Your task to perform on an android device: open app "Duolingo: language lessons" (install if not already installed), go to login, and select forgot password Image 0: 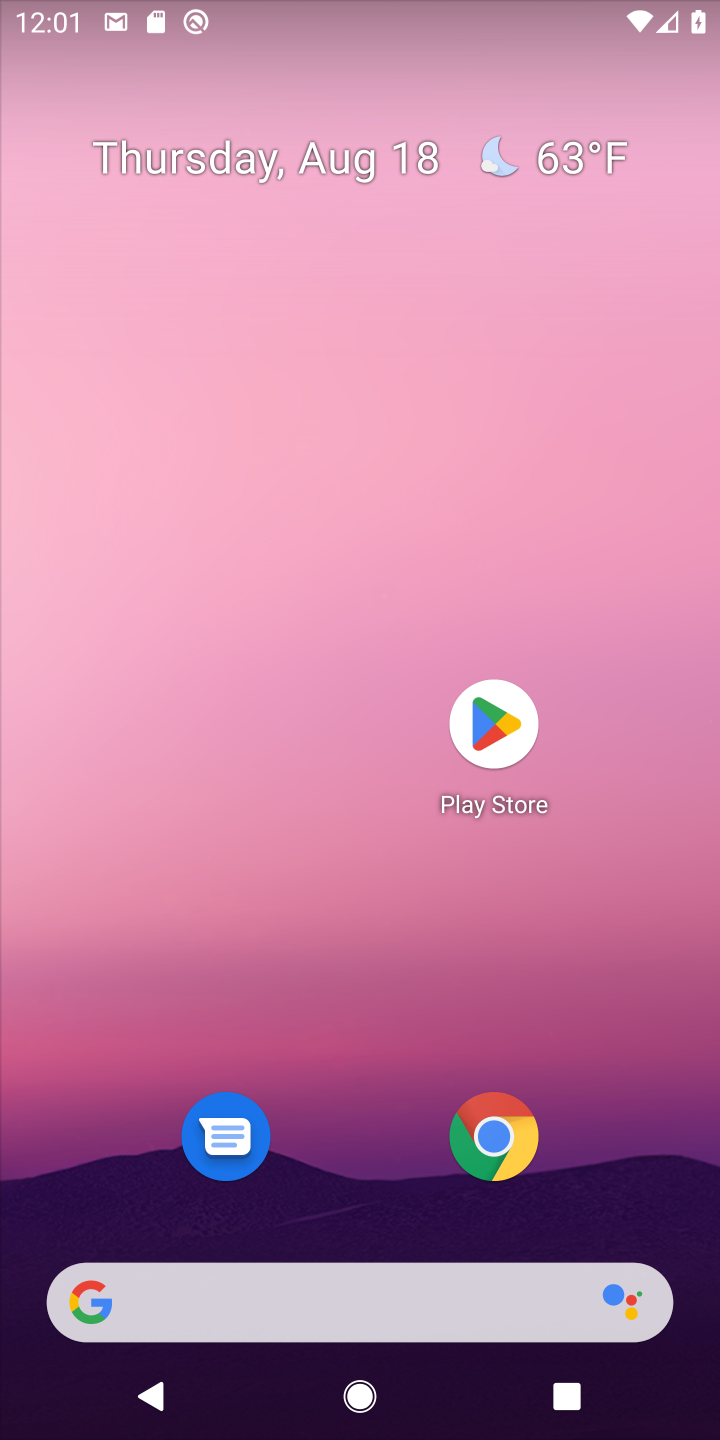
Step 0: press home button
Your task to perform on an android device: open app "Duolingo: language lessons" (install if not already installed), go to login, and select forgot password Image 1: 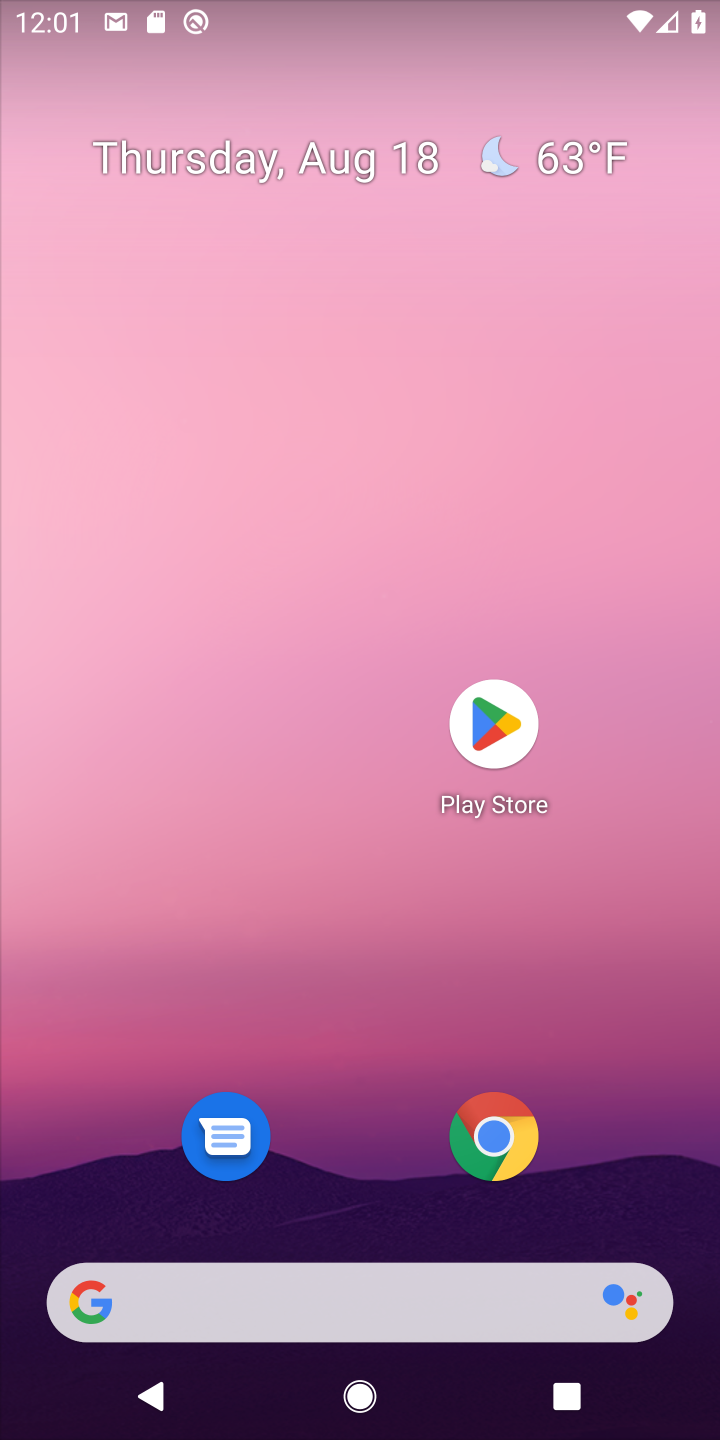
Step 1: click (488, 725)
Your task to perform on an android device: open app "Duolingo: language lessons" (install if not already installed), go to login, and select forgot password Image 2: 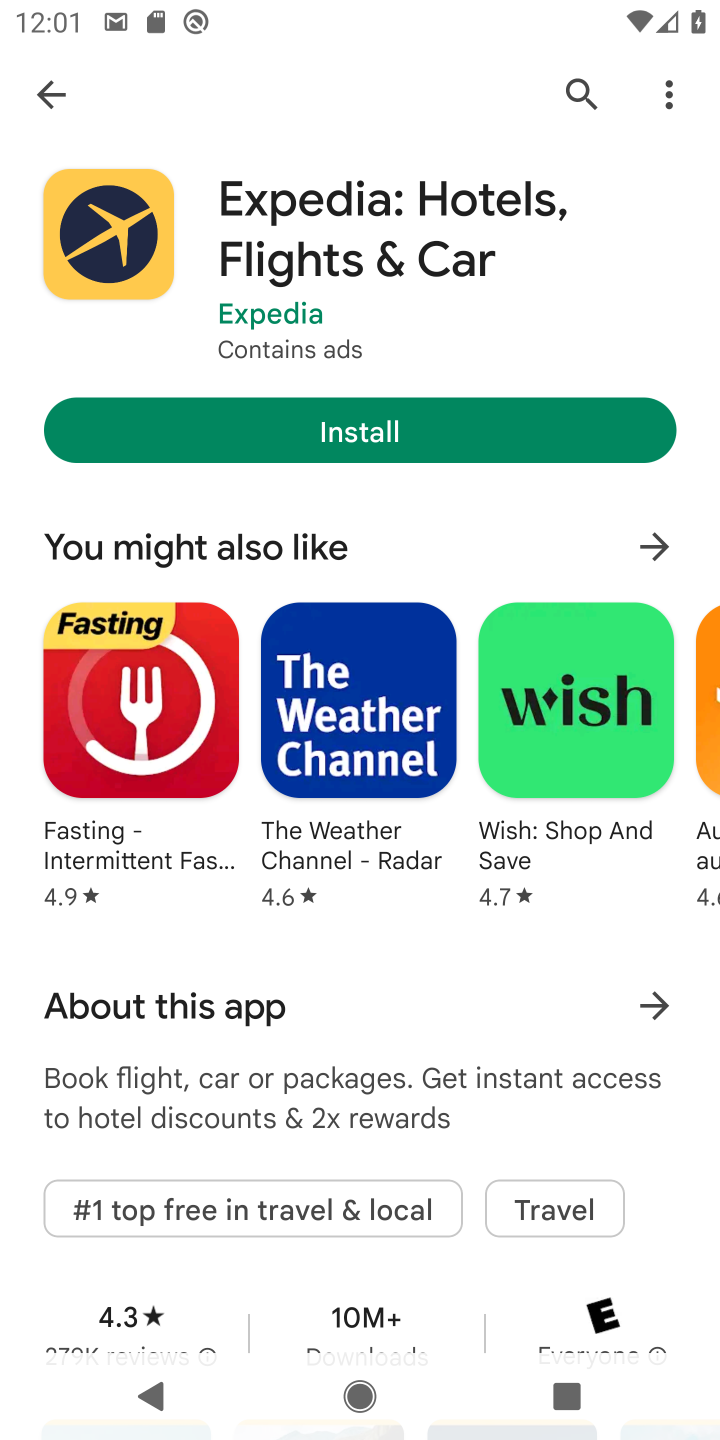
Step 2: click (578, 94)
Your task to perform on an android device: open app "Duolingo: language lessons" (install if not already installed), go to login, and select forgot password Image 3: 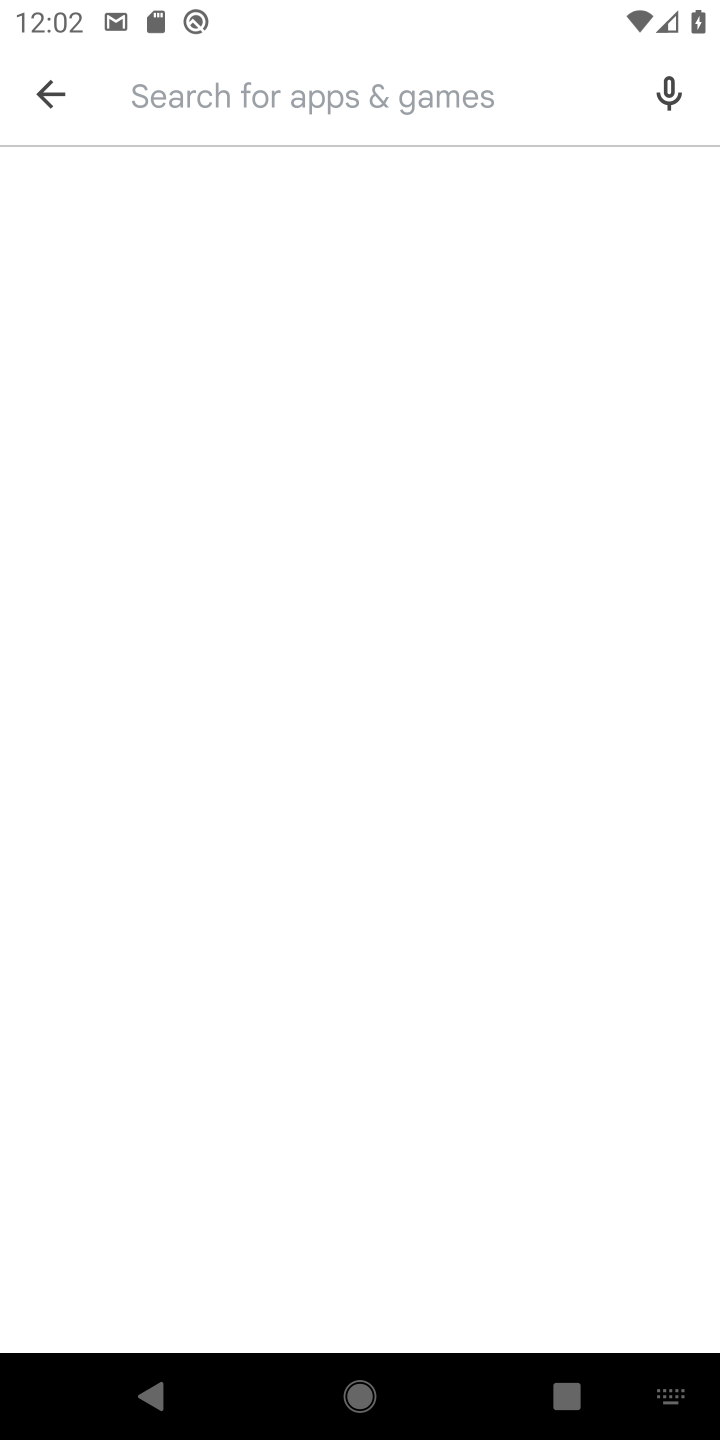
Step 3: type "Duolingo: language lessons"
Your task to perform on an android device: open app "Duolingo: language lessons" (install if not already installed), go to login, and select forgot password Image 4: 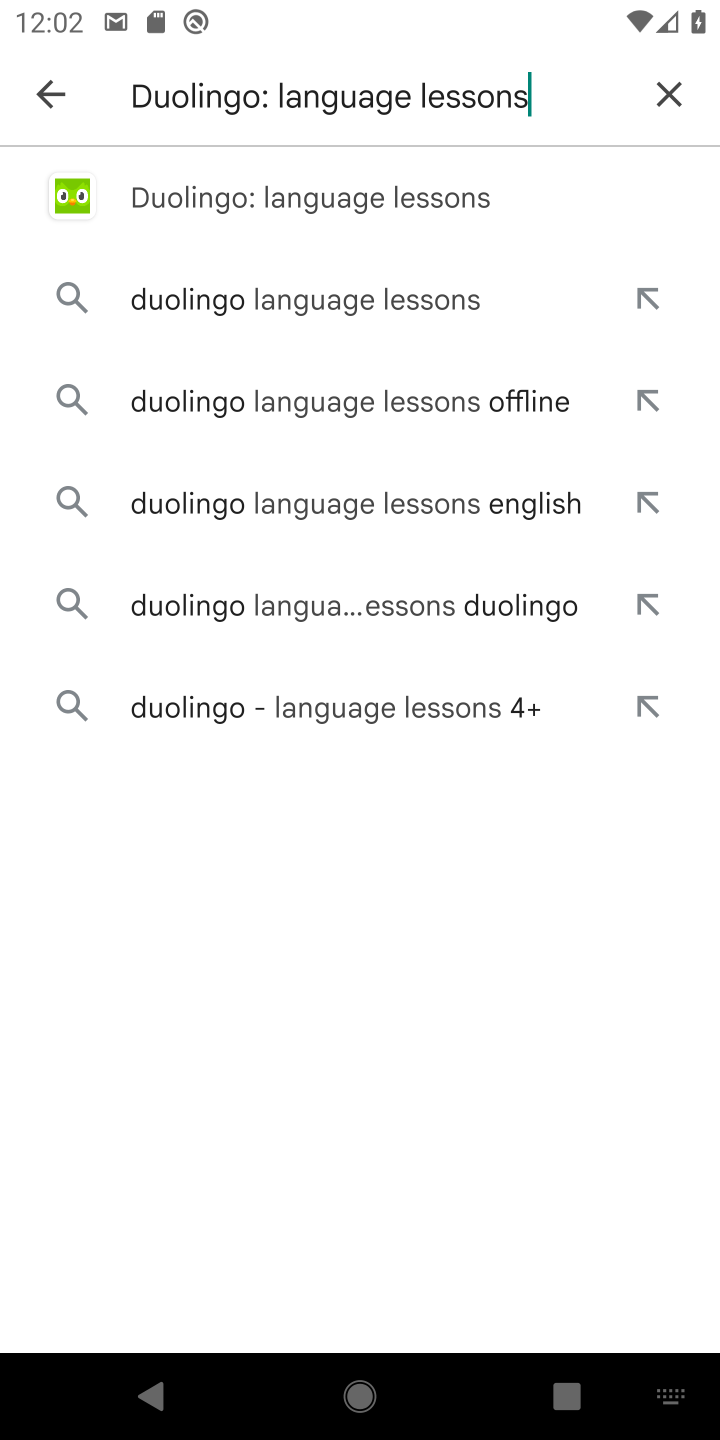
Step 4: click (295, 199)
Your task to perform on an android device: open app "Duolingo: language lessons" (install if not already installed), go to login, and select forgot password Image 5: 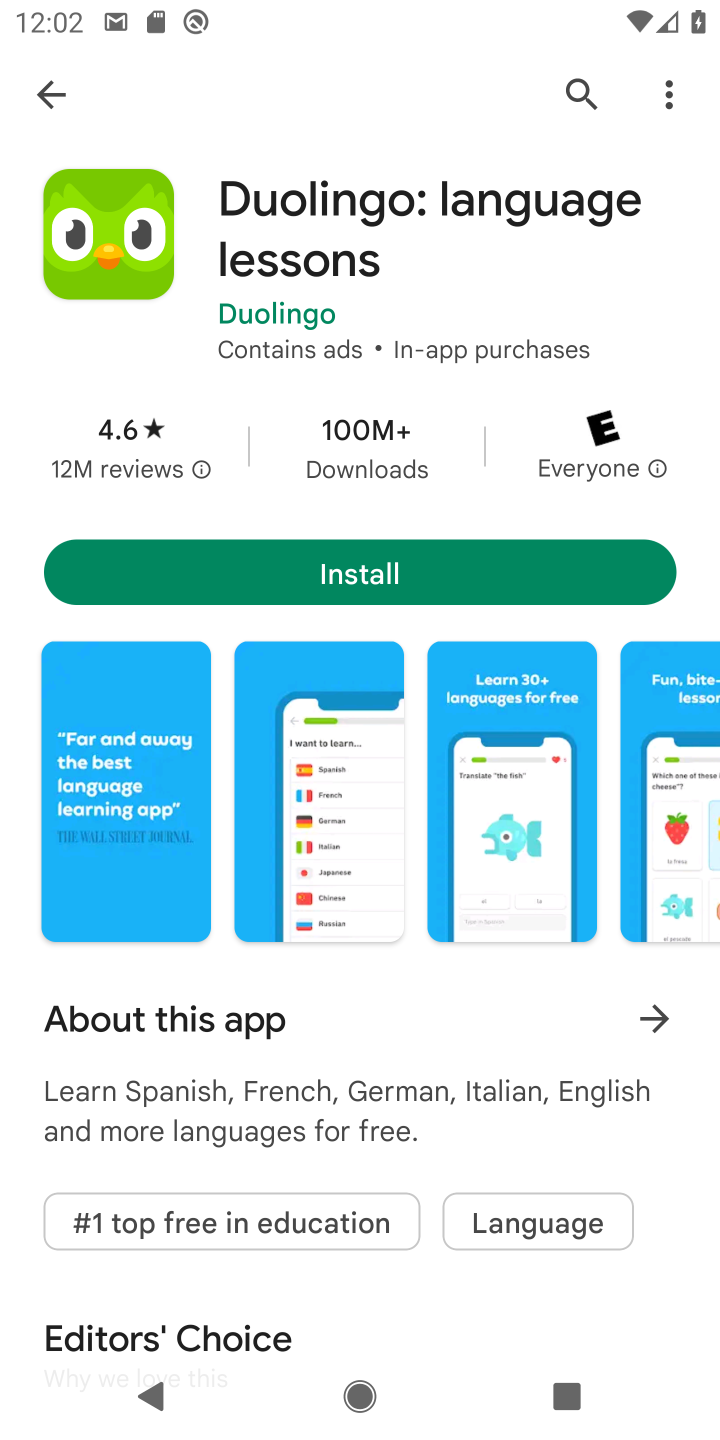
Step 5: click (349, 577)
Your task to perform on an android device: open app "Duolingo: language lessons" (install if not already installed), go to login, and select forgot password Image 6: 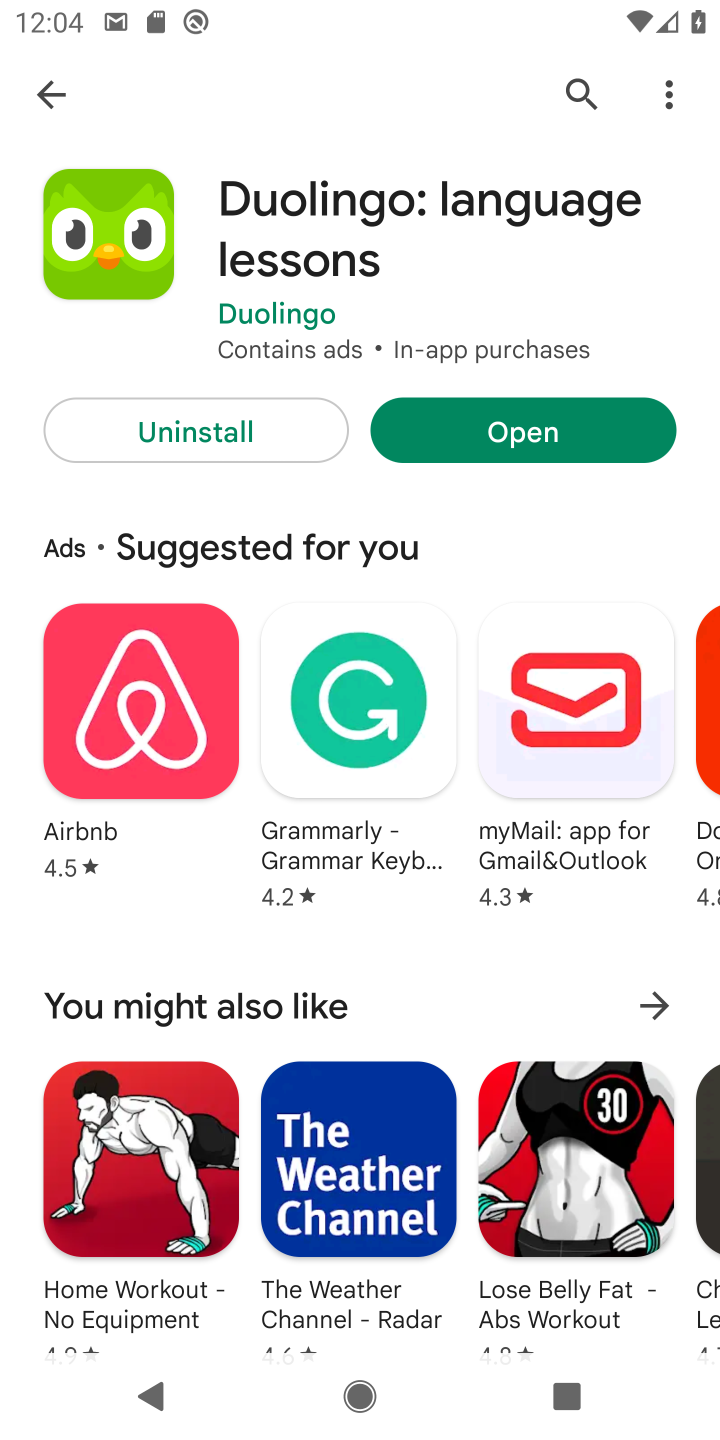
Step 6: click (568, 441)
Your task to perform on an android device: open app "Duolingo: language lessons" (install if not already installed), go to login, and select forgot password Image 7: 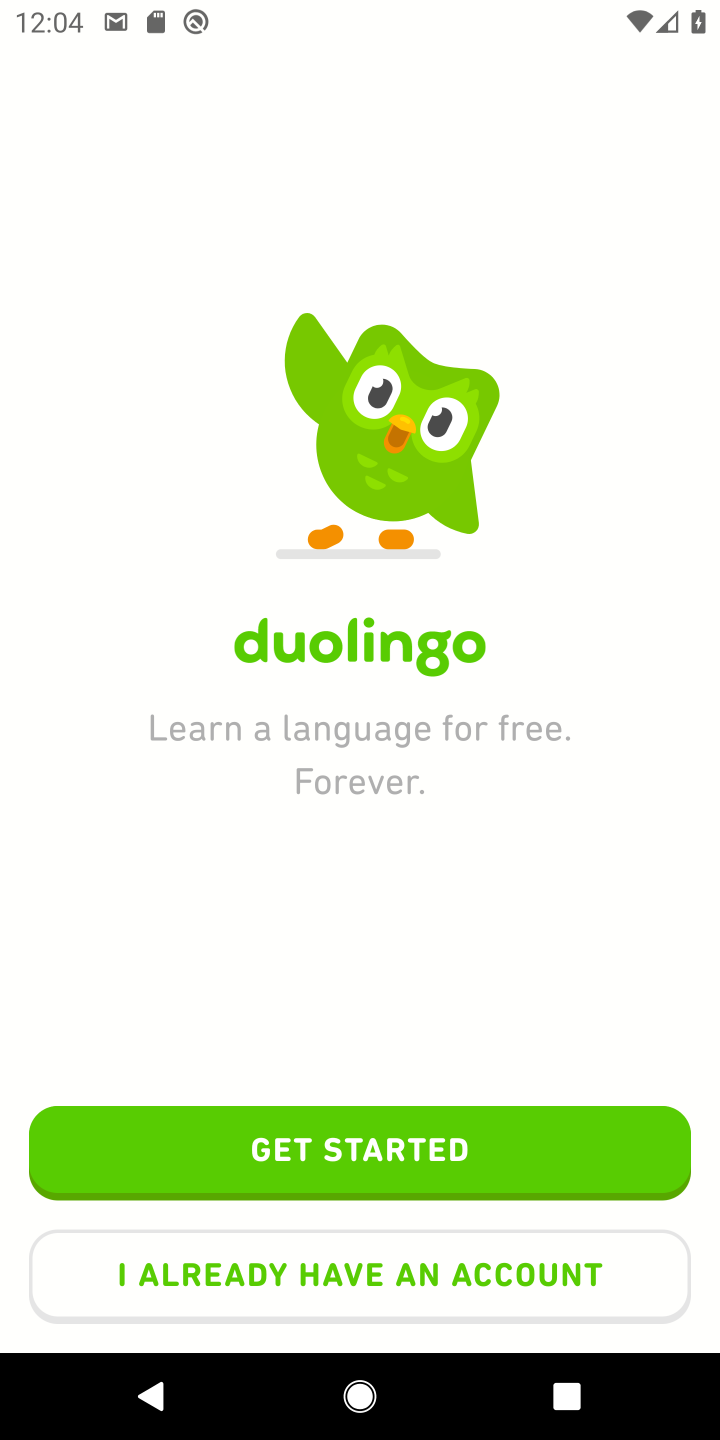
Step 7: click (403, 1277)
Your task to perform on an android device: open app "Duolingo: language lessons" (install if not already installed), go to login, and select forgot password Image 8: 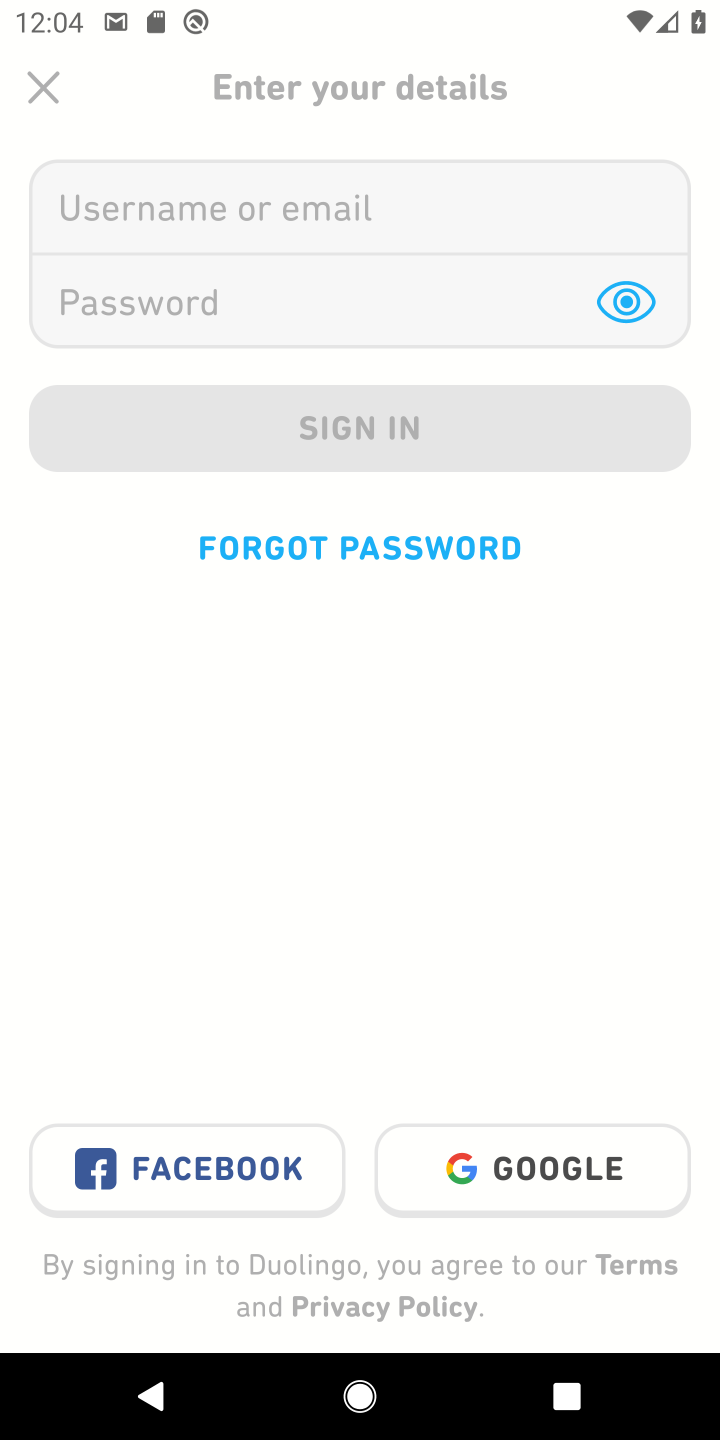
Step 8: task complete